Your task to perform on an android device: set an alarm Image 0: 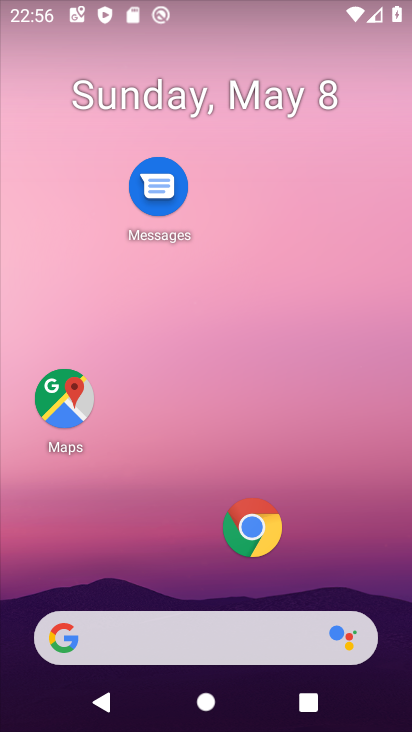
Step 0: drag from (151, 572) to (197, 78)
Your task to perform on an android device: set an alarm Image 1: 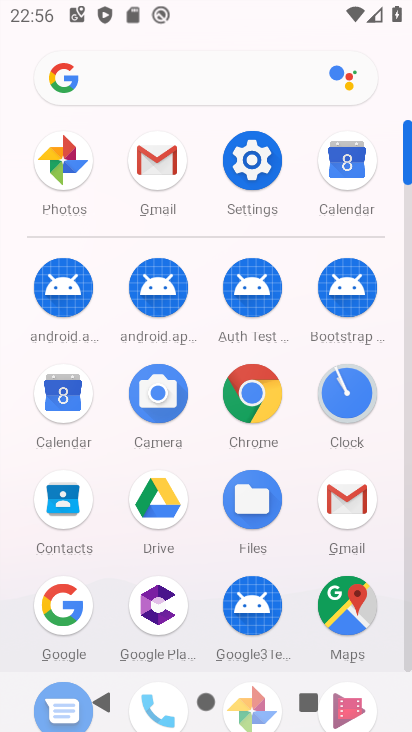
Step 1: click (339, 398)
Your task to perform on an android device: set an alarm Image 2: 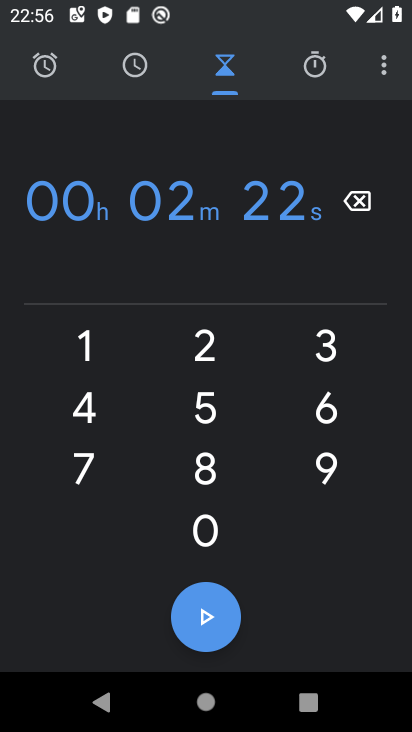
Step 2: click (50, 64)
Your task to perform on an android device: set an alarm Image 3: 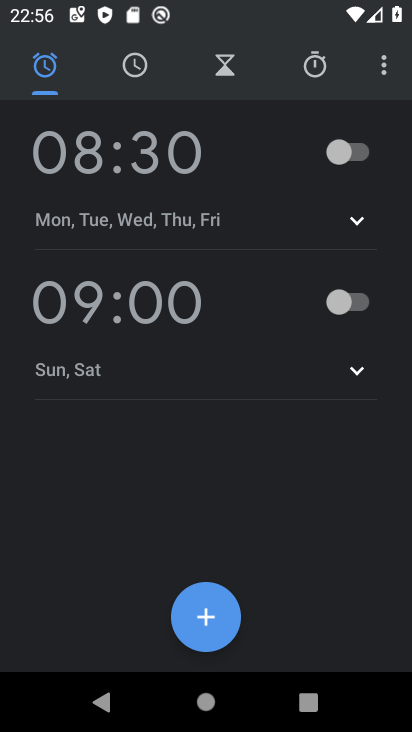
Step 3: click (349, 152)
Your task to perform on an android device: set an alarm Image 4: 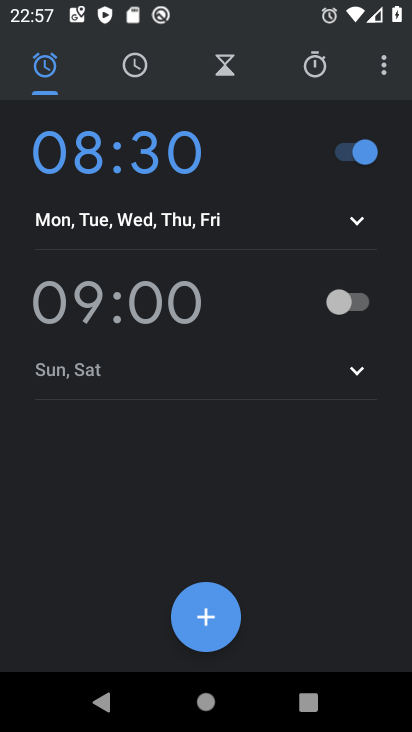
Step 4: task complete